Your task to perform on an android device: toggle improve location accuracy Image 0: 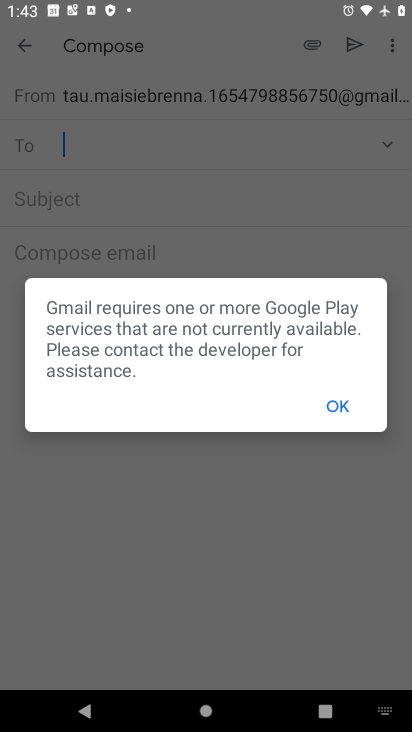
Step 0: press home button
Your task to perform on an android device: toggle improve location accuracy Image 1: 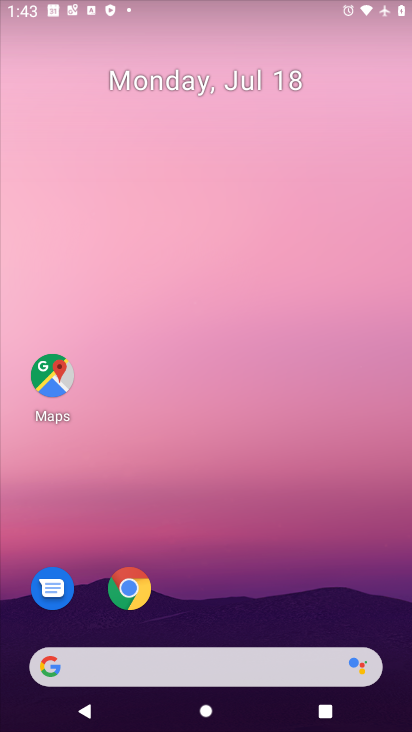
Step 1: drag from (268, 648) to (382, 124)
Your task to perform on an android device: toggle improve location accuracy Image 2: 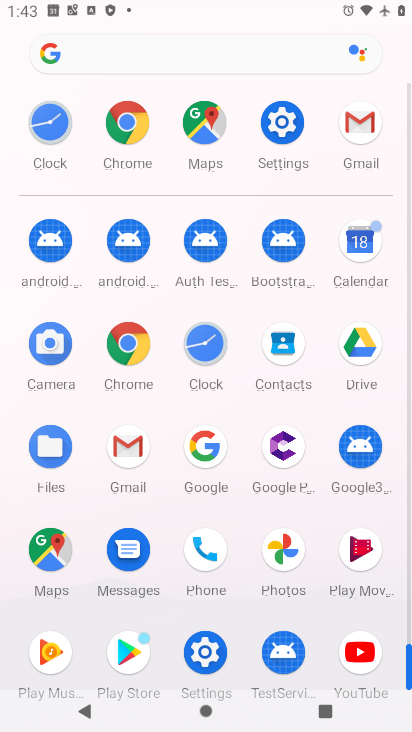
Step 2: click (290, 136)
Your task to perform on an android device: toggle improve location accuracy Image 3: 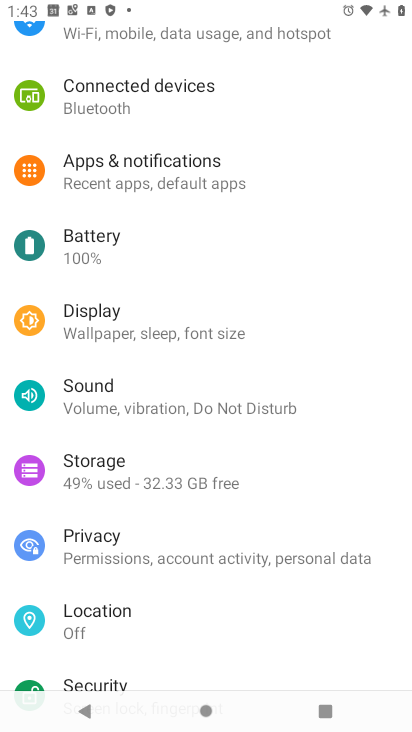
Step 3: click (151, 627)
Your task to perform on an android device: toggle improve location accuracy Image 4: 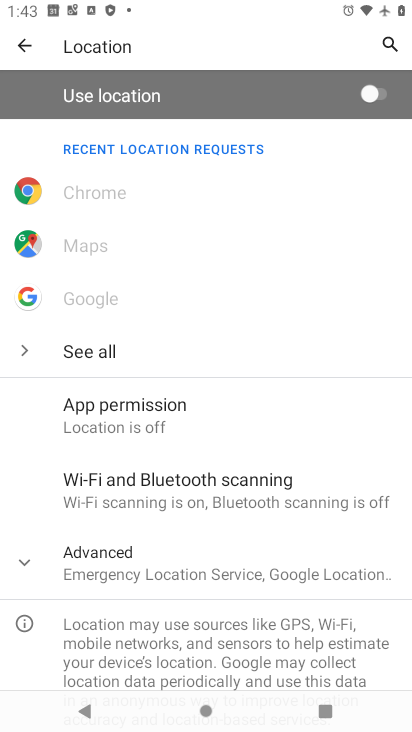
Step 4: click (122, 580)
Your task to perform on an android device: toggle improve location accuracy Image 5: 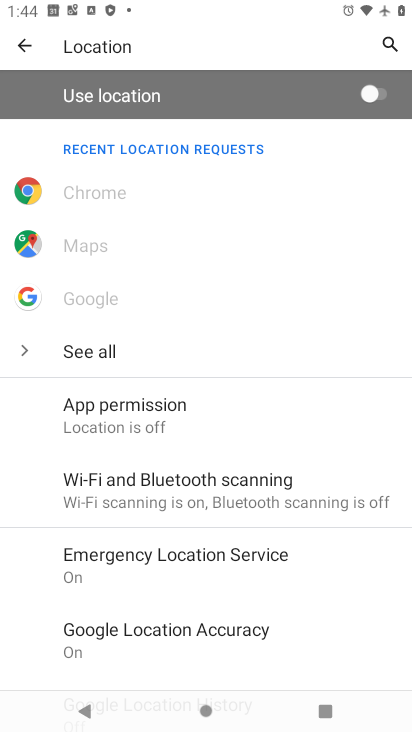
Step 5: drag from (145, 605) to (187, 388)
Your task to perform on an android device: toggle improve location accuracy Image 6: 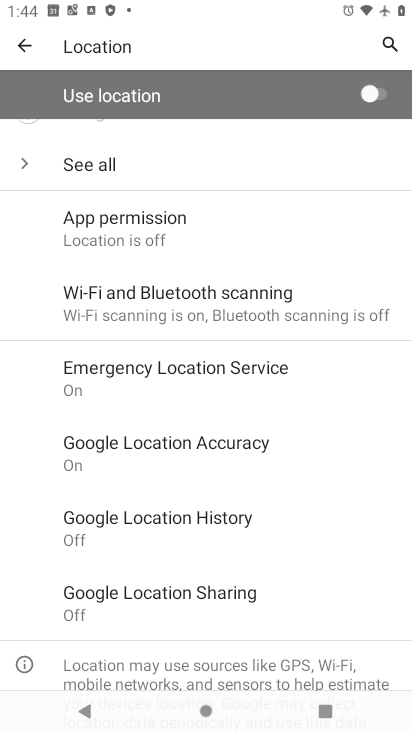
Step 6: click (163, 451)
Your task to perform on an android device: toggle improve location accuracy Image 7: 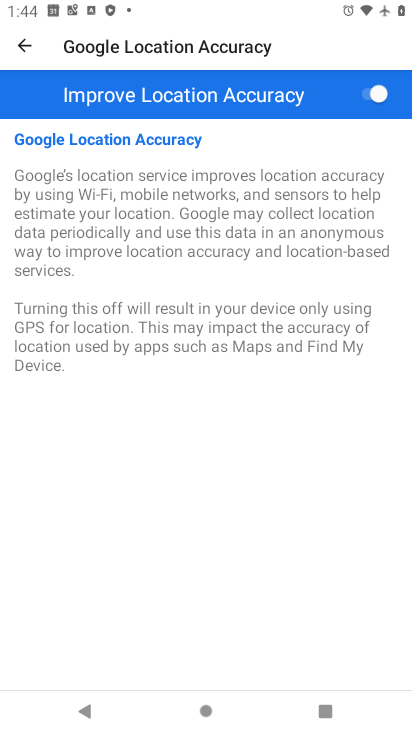
Step 7: click (368, 106)
Your task to perform on an android device: toggle improve location accuracy Image 8: 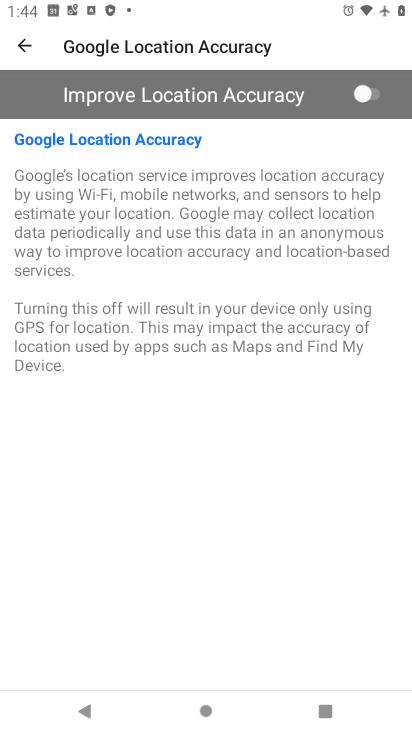
Step 8: task complete